Your task to perform on an android device: Open calendar and show me the first week of next month Image 0: 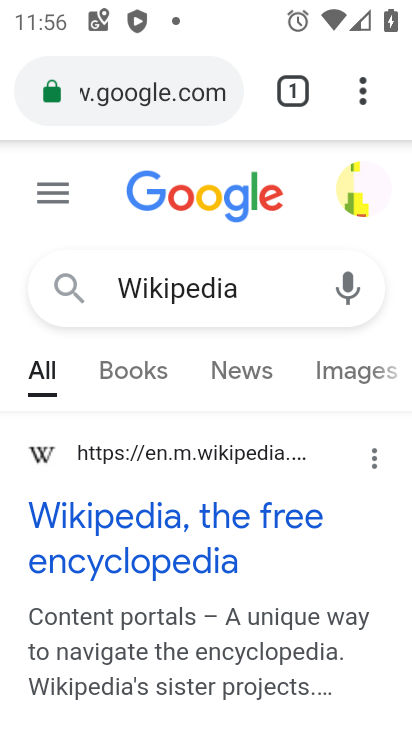
Step 0: press home button
Your task to perform on an android device: Open calendar and show me the first week of next month Image 1: 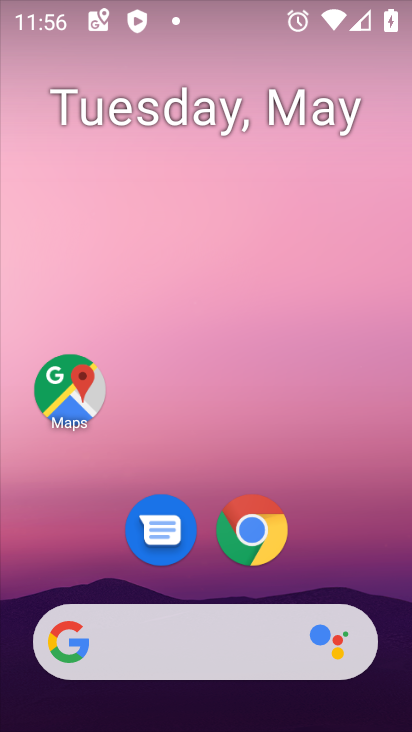
Step 1: drag from (193, 590) to (273, 136)
Your task to perform on an android device: Open calendar and show me the first week of next month Image 2: 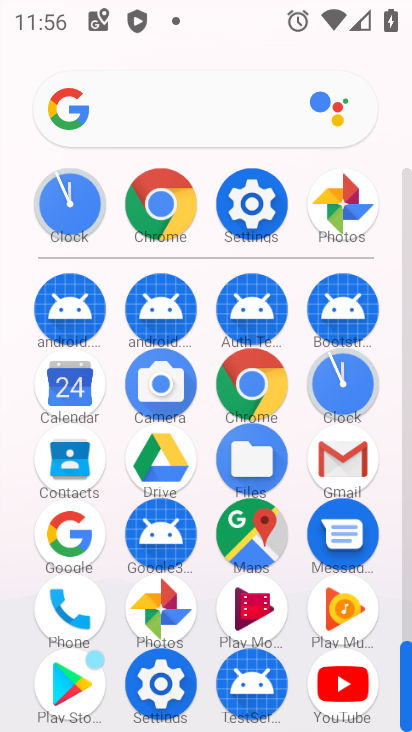
Step 2: click (71, 385)
Your task to perform on an android device: Open calendar and show me the first week of next month Image 3: 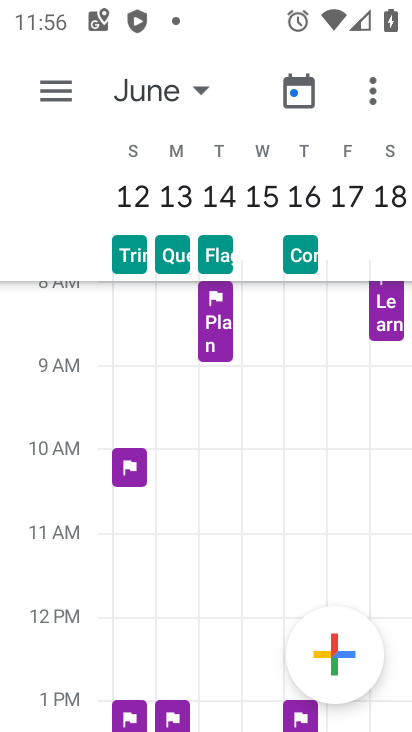
Step 3: click (199, 96)
Your task to perform on an android device: Open calendar and show me the first week of next month Image 4: 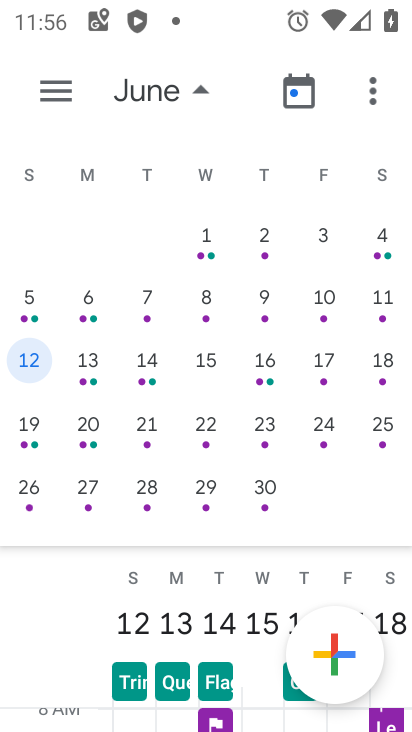
Step 4: click (221, 237)
Your task to perform on an android device: Open calendar and show me the first week of next month Image 5: 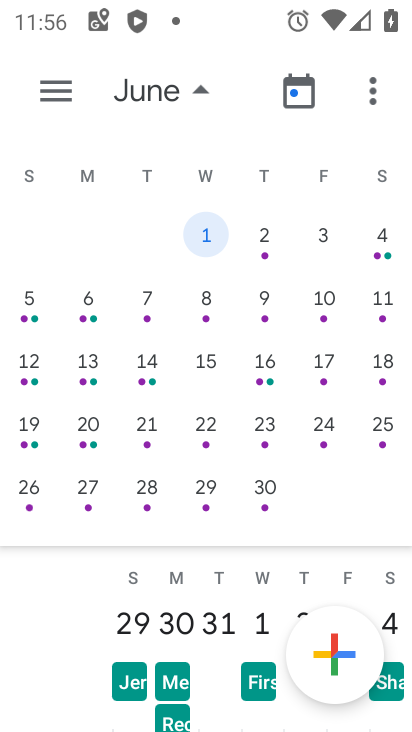
Step 5: click (254, 225)
Your task to perform on an android device: Open calendar and show me the first week of next month Image 6: 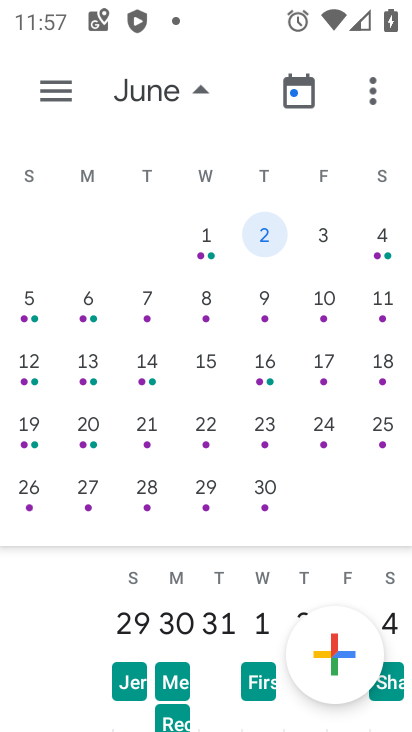
Step 6: click (58, 90)
Your task to perform on an android device: Open calendar and show me the first week of next month Image 7: 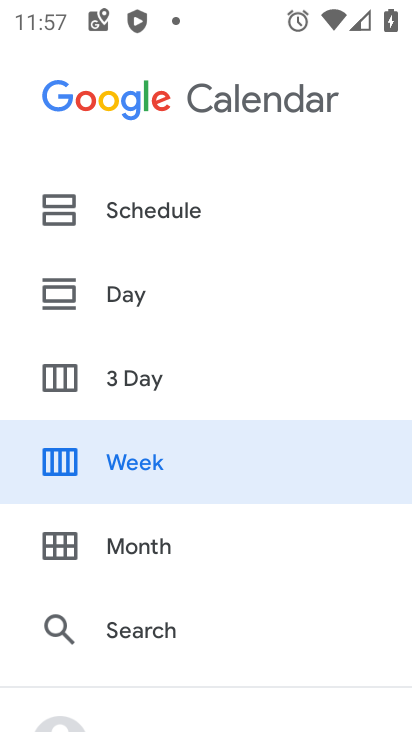
Step 7: click (144, 445)
Your task to perform on an android device: Open calendar and show me the first week of next month Image 8: 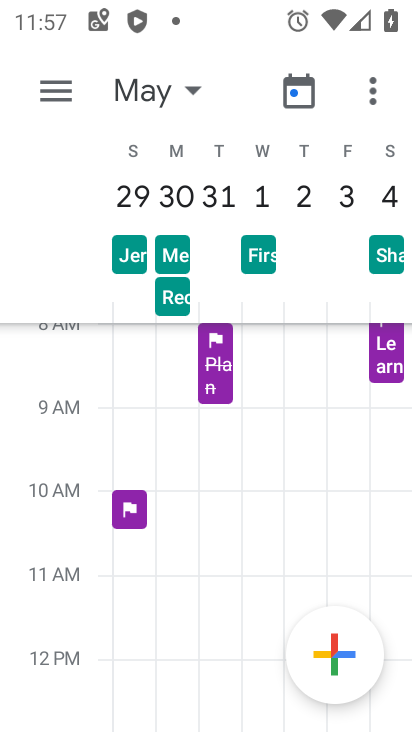
Step 8: task complete